Your task to perform on an android device: turn off picture-in-picture Image 0: 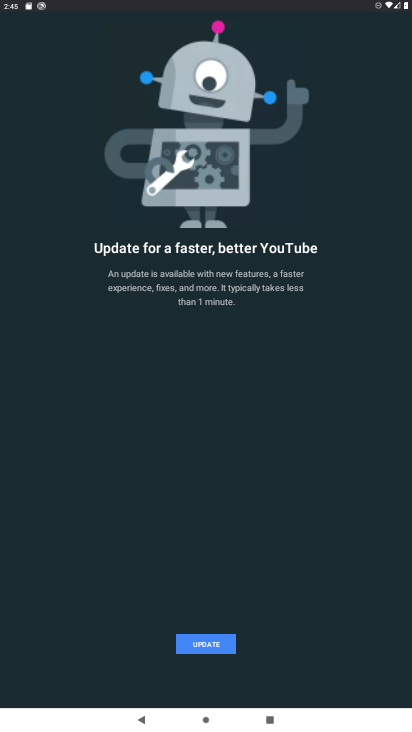
Step 0: press home button
Your task to perform on an android device: turn off picture-in-picture Image 1: 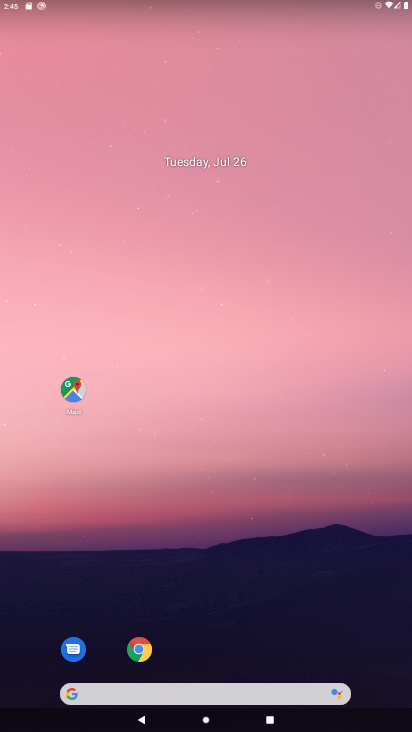
Step 1: click (146, 647)
Your task to perform on an android device: turn off picture-in-picture Image 2: 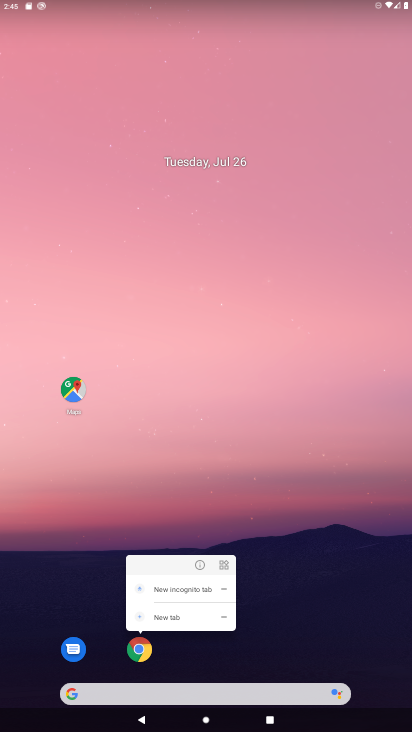
Step 2: click (199, 565)
Your task to perform on an android device: turn off picture-in-picture Image 3: 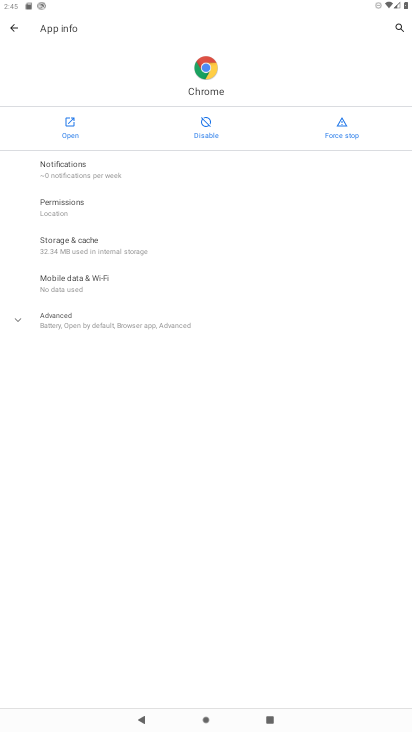
Step 3: click (77, 317)
Your task to perform on an android device: turn off picture-in-picture Image 4: 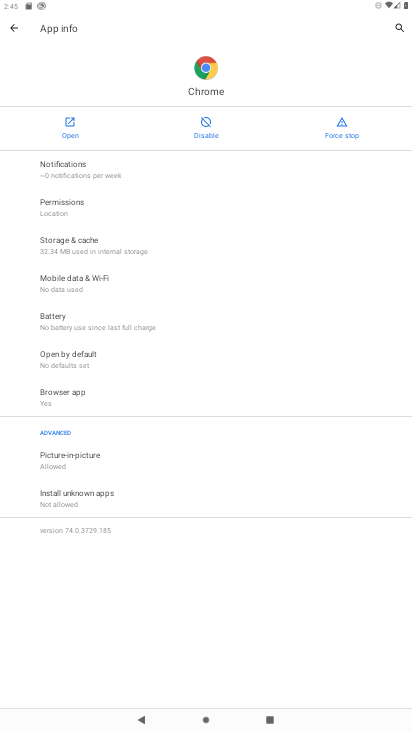
Step 4: click (88, 455)
Your task to perform on an android device: turn off picture-in-picture Image 5: 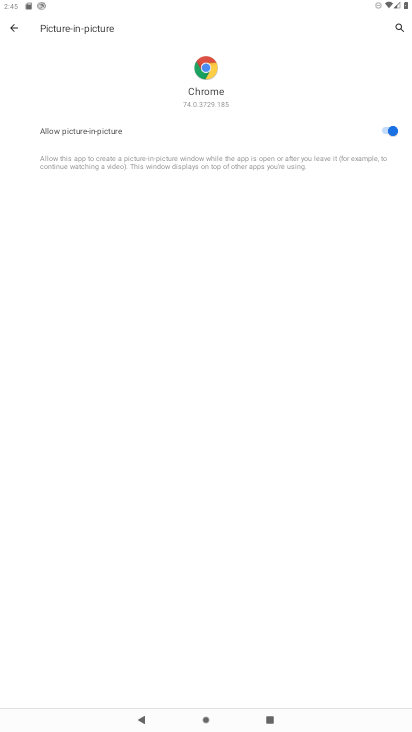
Step 5: click (388, 127)
Your task to perform on an android device: turn off picture-in-picture Image 6: 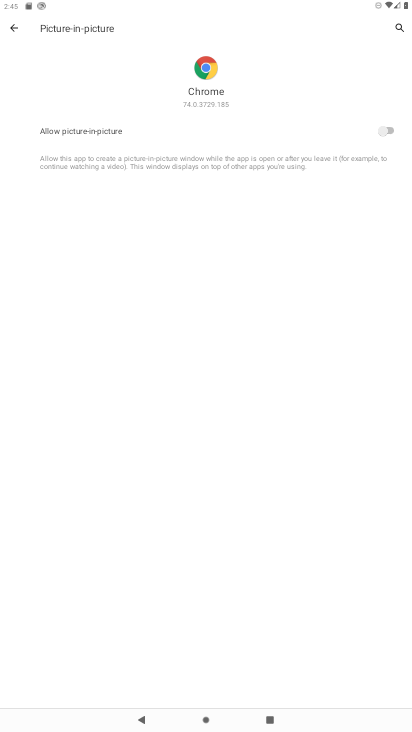
Step 6: task complete